Your task to perform on an android device: Set the phone to "Do not disturb". Image 0: 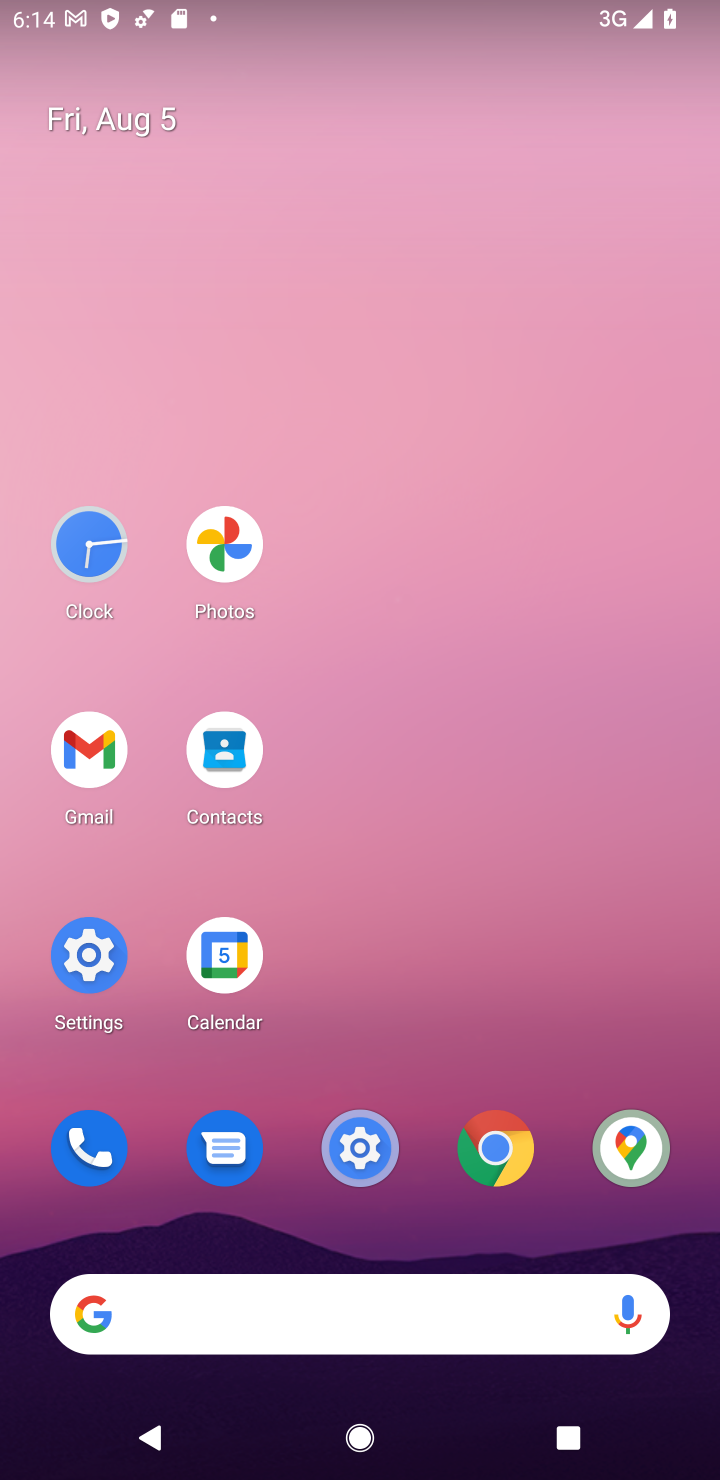
Step 0: click (370, 1135)
Your task to perform on an android device: Set the phone to "Do not disturb". Image 1: 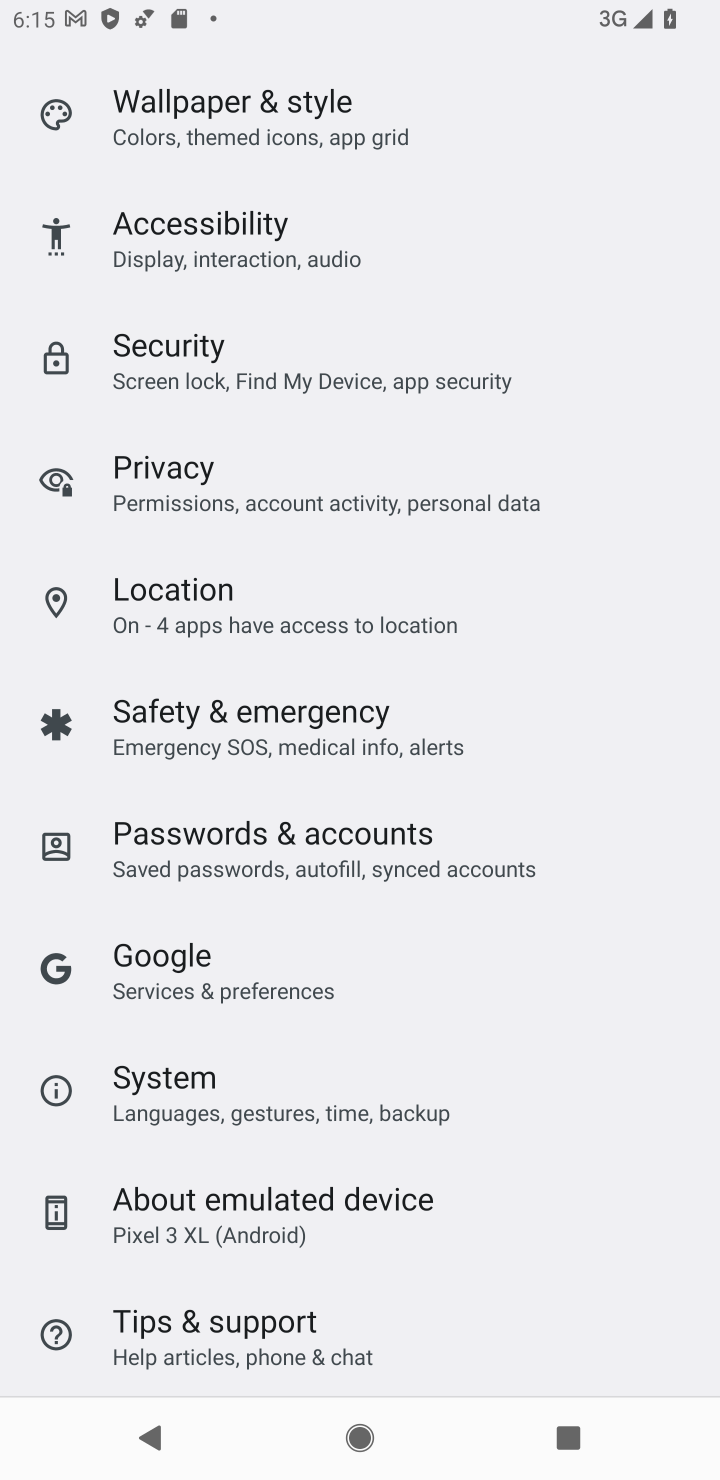
Step 1: drag from (555, 299) to (674, 1095)
Your task to perform on an android device: Set the phone to "Do not disturb". Image 2: 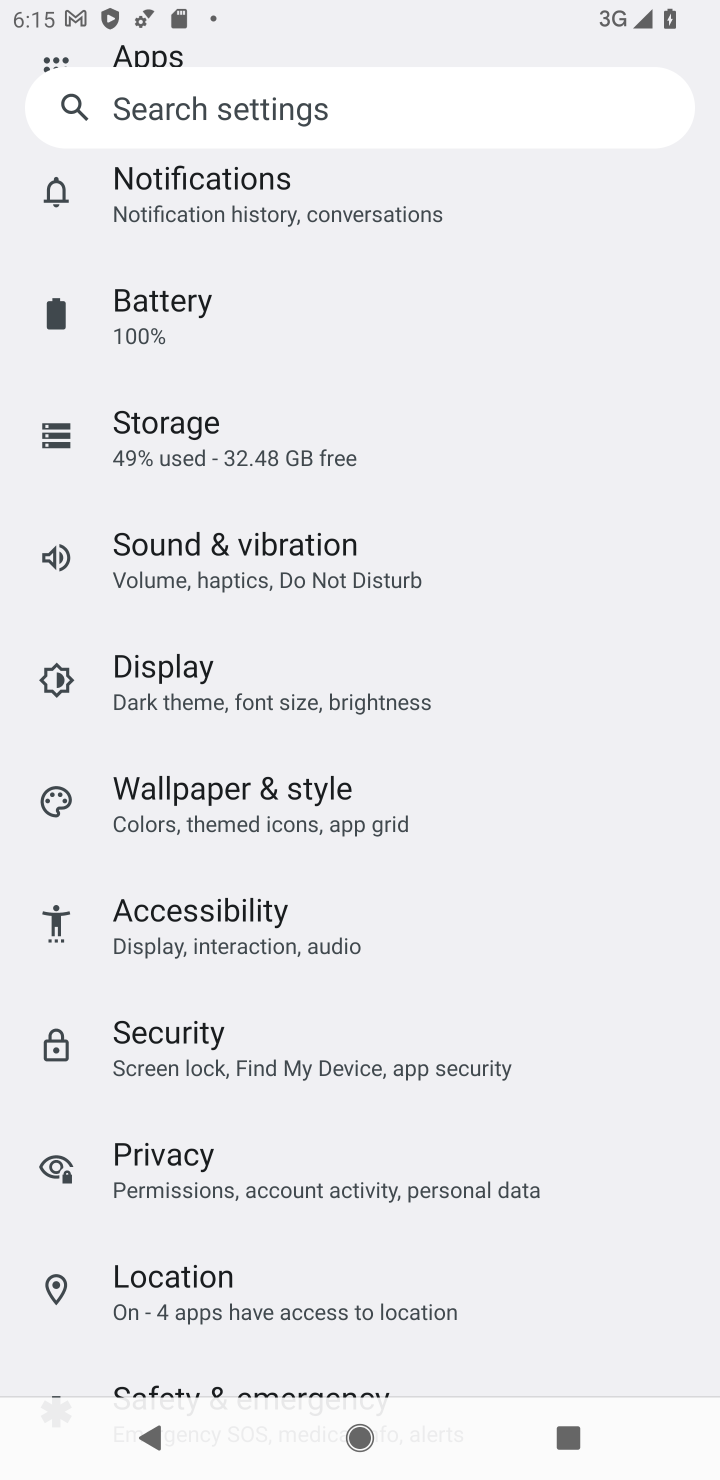
Step 2: click (210, 540)
Your task to perform on an android device: Set the phone to "Do not disturb". Image 3: 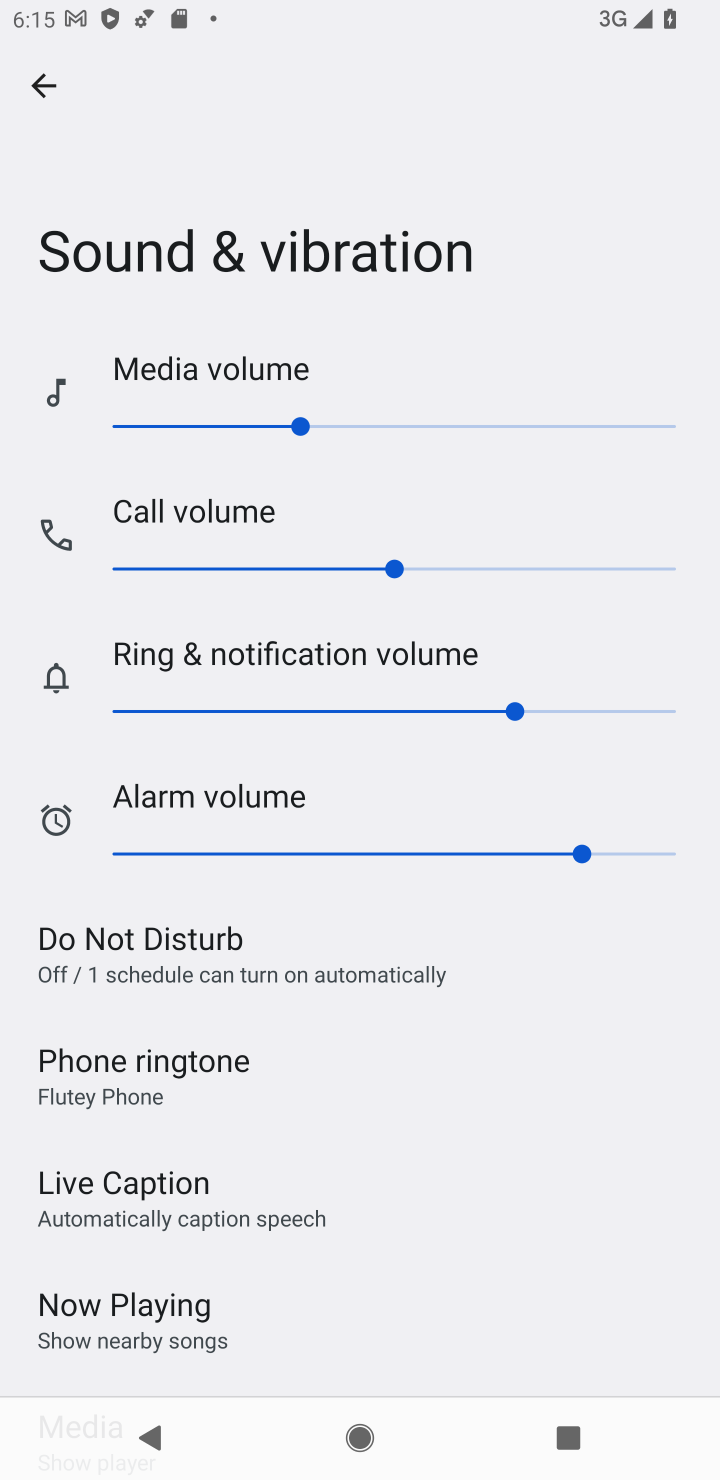
Step 3: click (192, 939)
Your task to perform on an android device: Set the phone to "Do not disturb". Image 4: 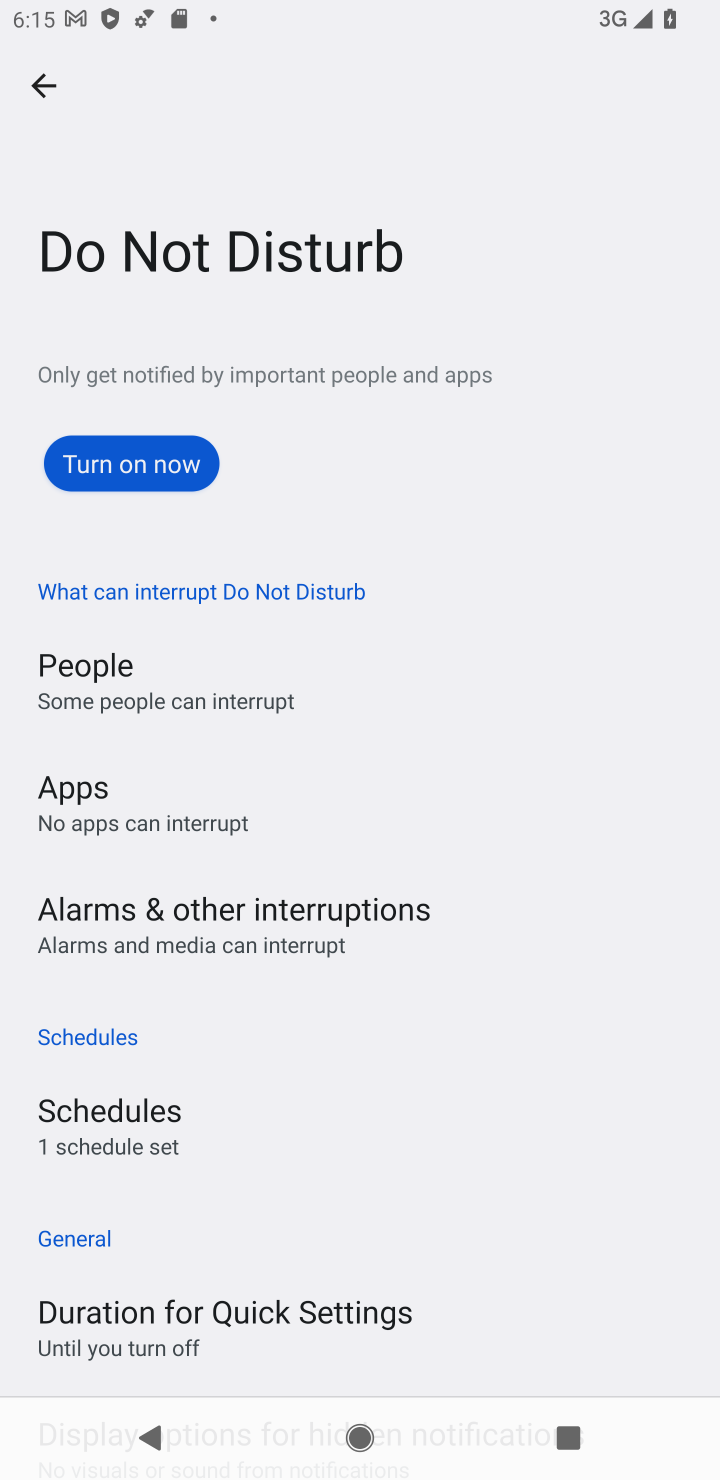
Step 4: click (125, 466)
Your task to perform on an android device: Set the phone to "Do not disturb". Image 5: 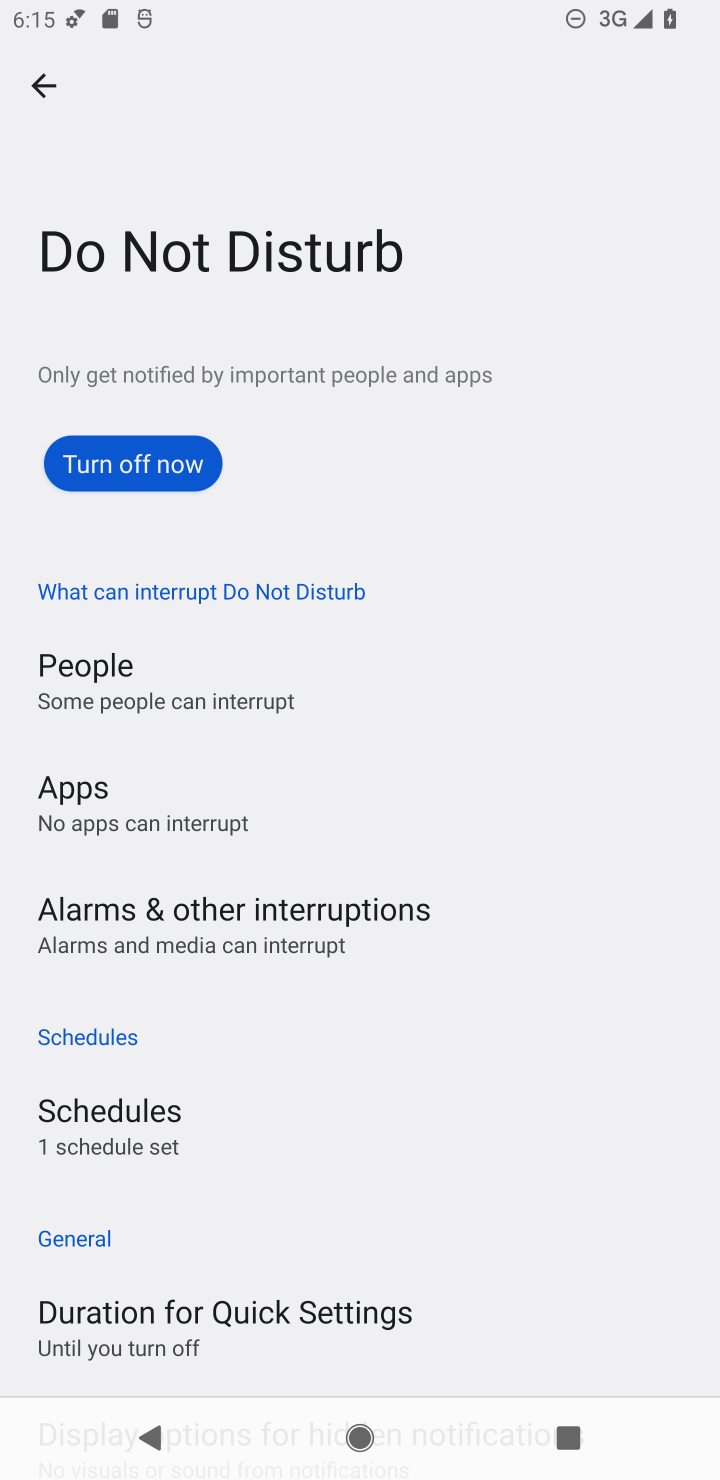
Step 5: task complete